Your task to perform on an android device: see creations saved in the google photos Image 0: 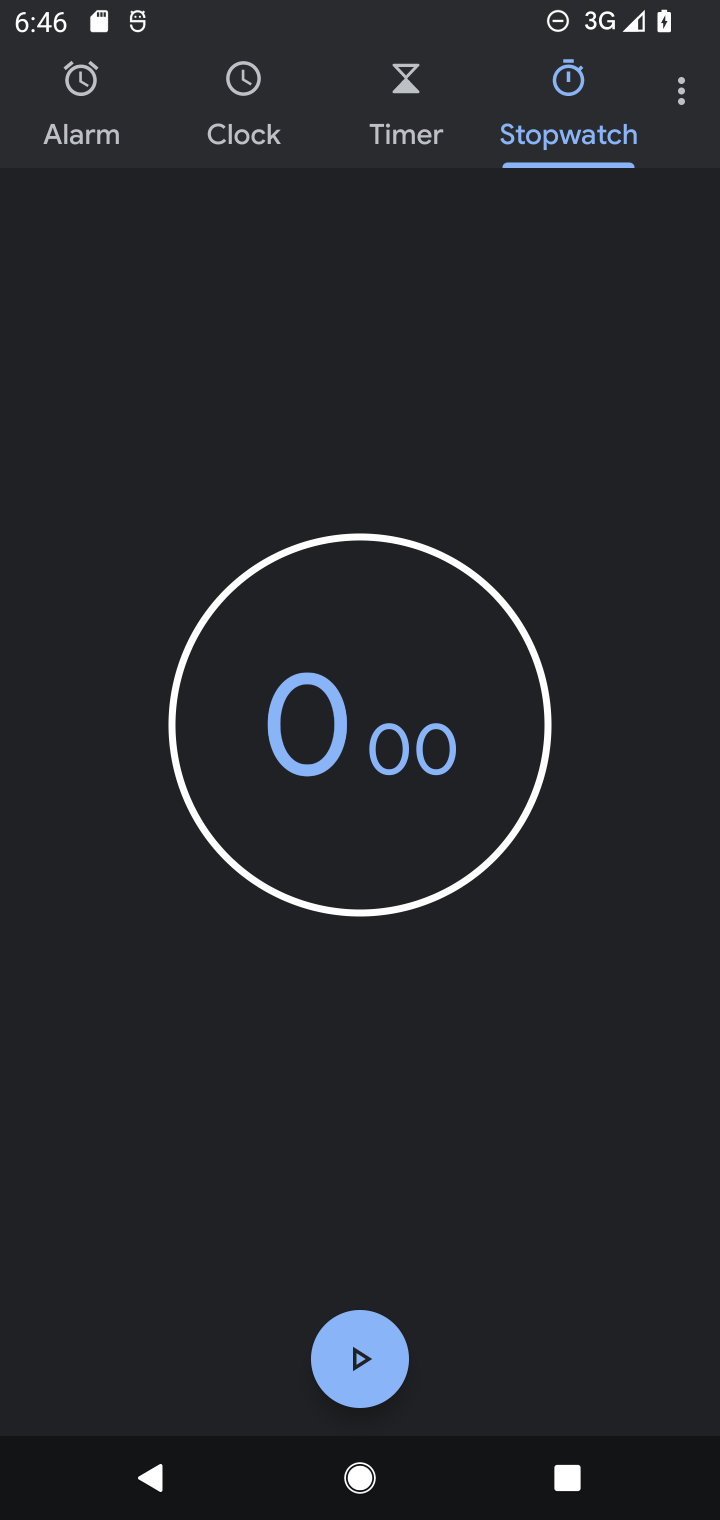
Step 0: press home button
Your task to perform on an android device: see creations saved in the google photos Image 1: 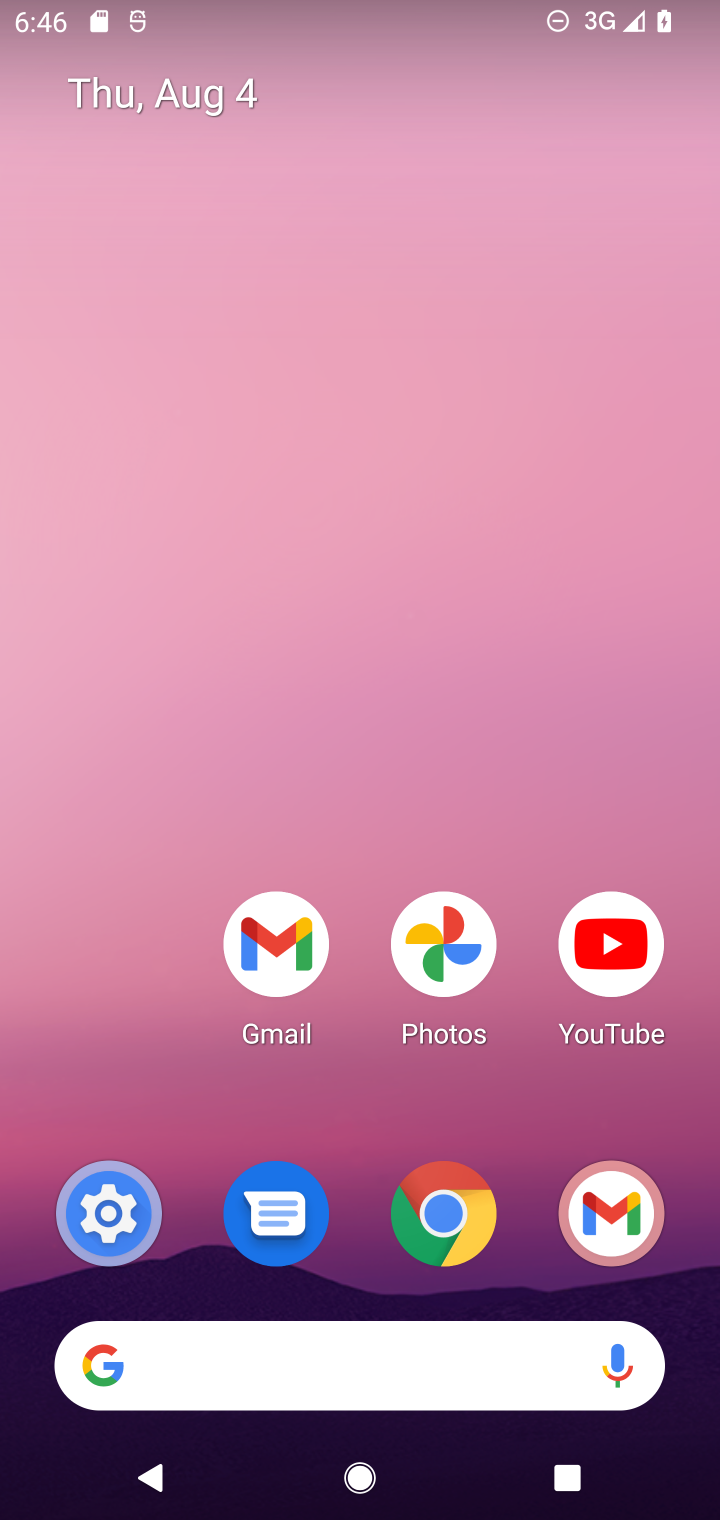
Step 1: drag from (176, 1142) to (140, 317)
Your task to perform on an android device: see creations saved in the google photos Image 2: 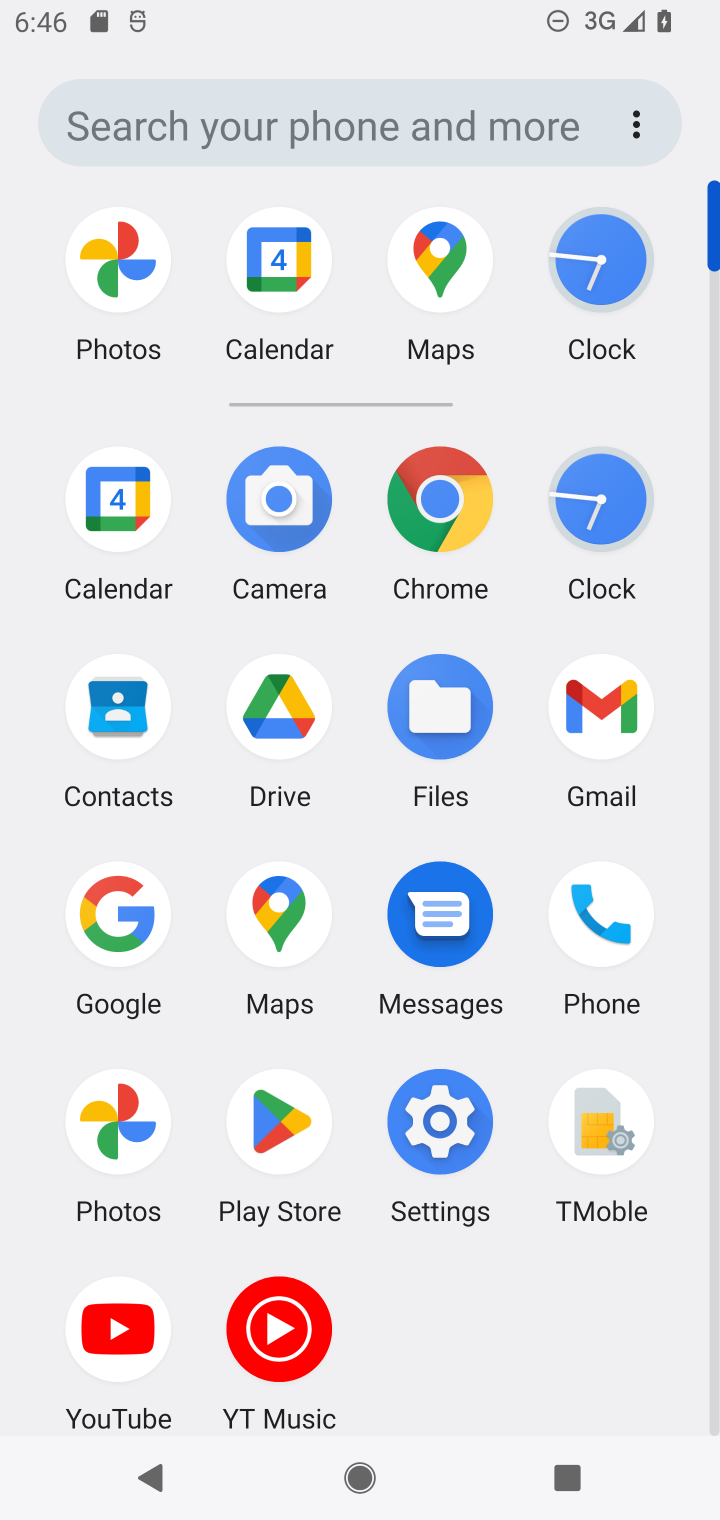
Step 2: click (113, 1117)
Your task to perform on an android device: see creations saved in the google photos Image 3: 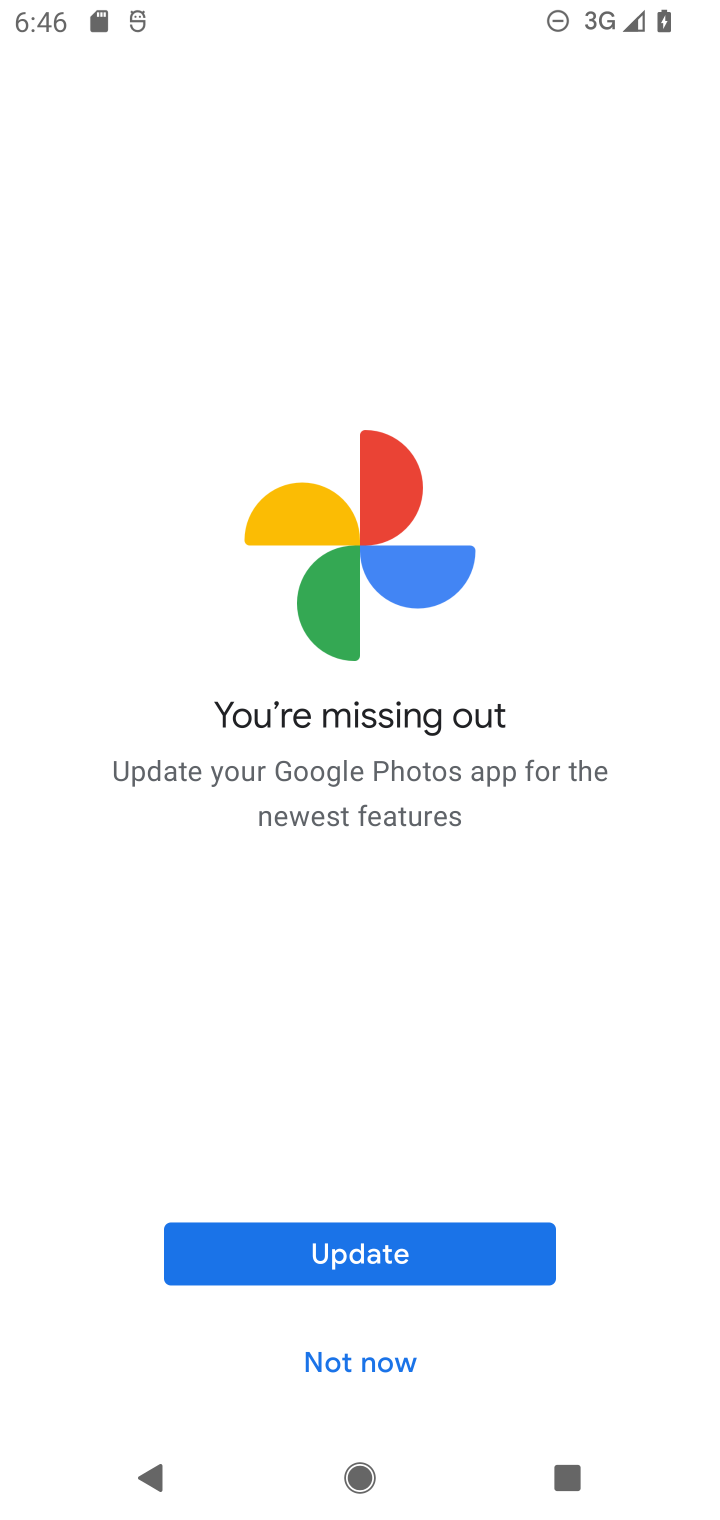
Step 3: click (373, 1361)
Your task to perform on an android device: see creations saved in the google photos Image 4: 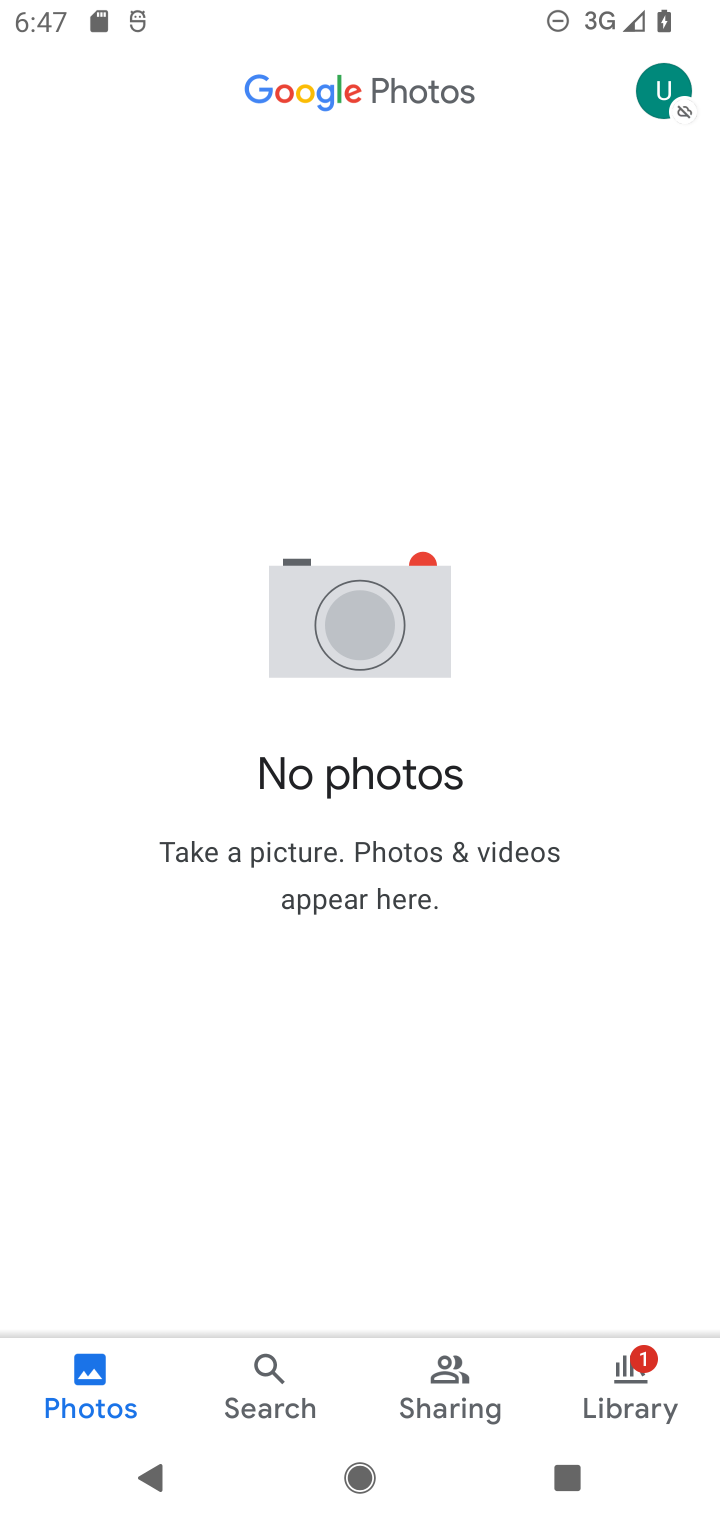
Step 4: task complete